Your task to perform on an android device: Set the phone to "Do not disturb". Image 0: 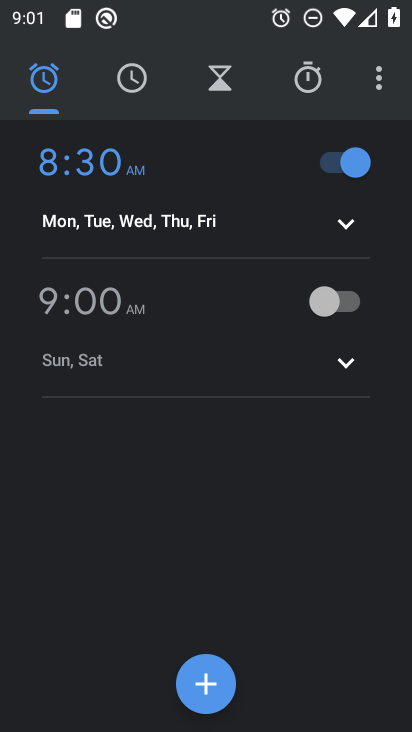
Step 0: press home button
Your task to perform on an android device: Set the phone to "Do not disturb". Image 1: 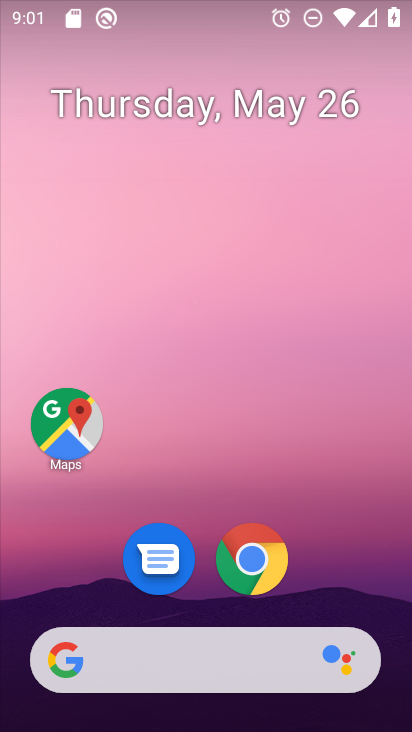
Step 1: drag from (224, 457) to (243, 39)
Your task to perform on an android device: Set the phone to "Do not disturb". Image 2: 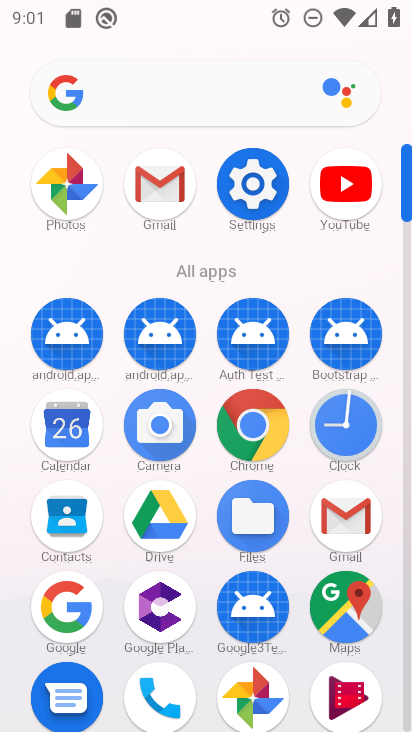
Step 2: click (268, 171)
Your task to perform on an android device: Set the phone to "Do not disturb". Image 3: 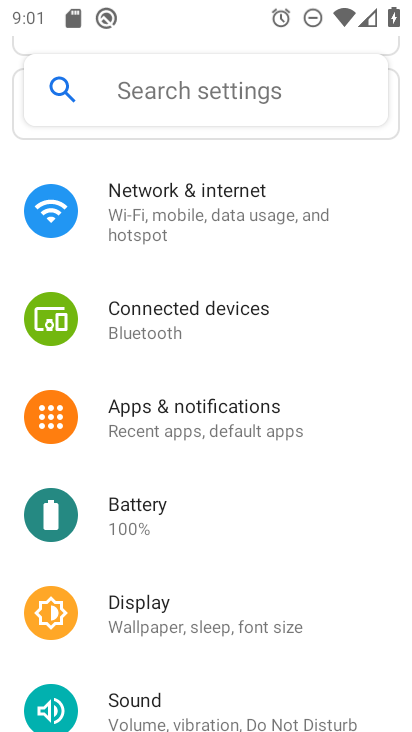
Step 3: drag from (192, 657) to (230, 180)
Your task to perform on an android device: Set the phone to "Do not disturb". Image 4: 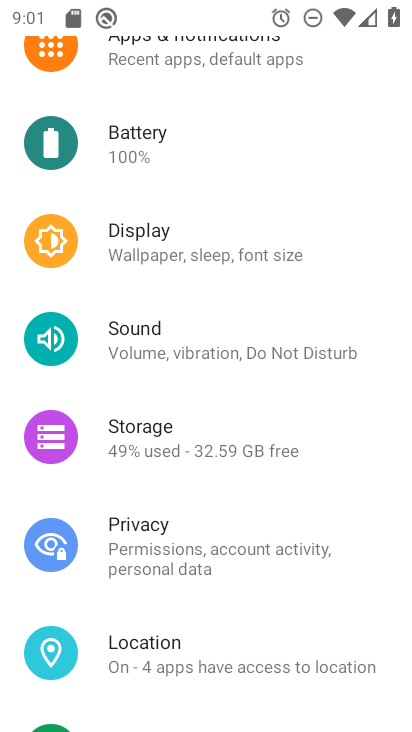
Step 4: click (192, 340)
Your task to perform on an android device: Set the phone to "Do not disturb". Image 5: 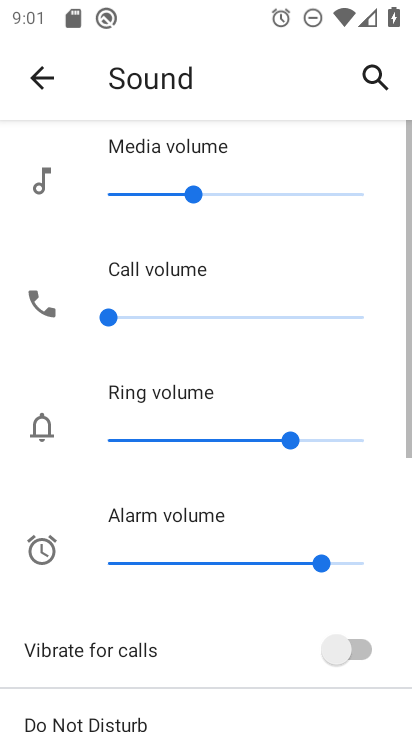
Step 5: drag from (216, 623) to (290, 157)
Your task to perform on an android device: Set the phone to "Do not disturb". Image 6: 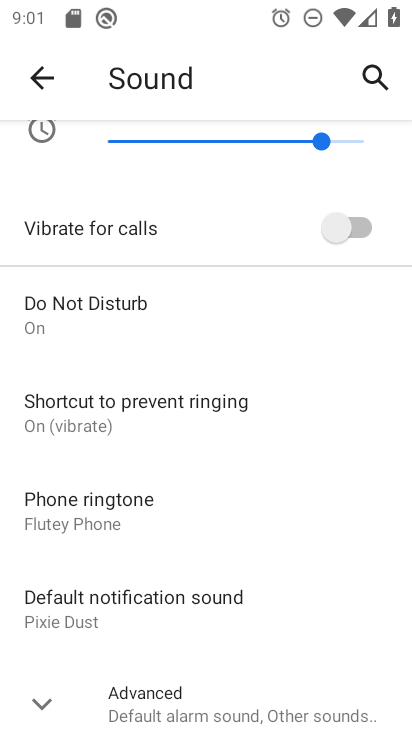
Step 6: click (130, 319)
Your task to perform on an android device: Set the phone to "Do not disturb". Image 7: 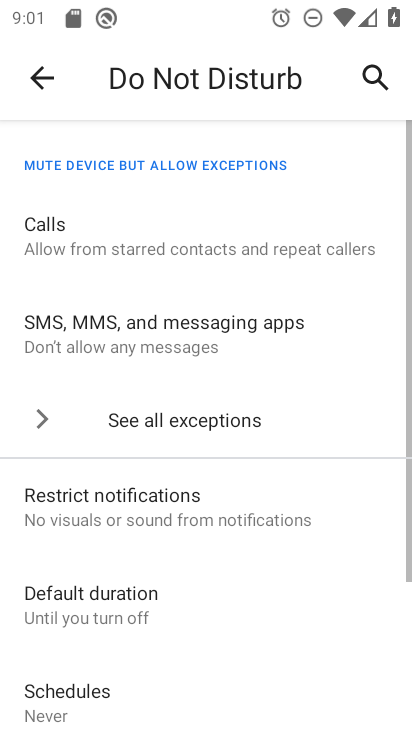
Step 7: task complete